Your task to perform on an android device: Open Google Chrome Image 0: 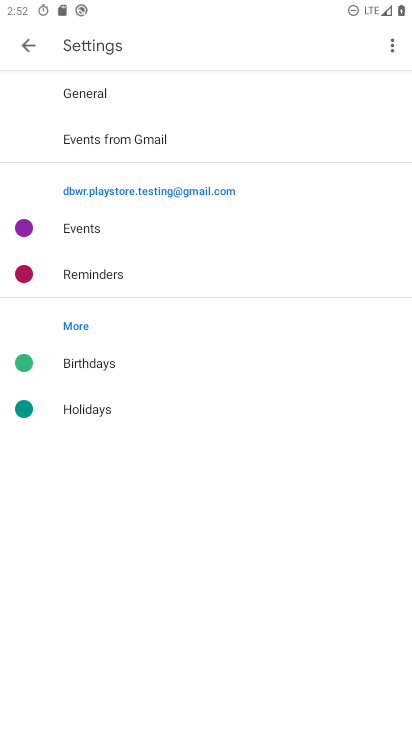
Step 0: press home button
Your task to perform on an android device: Open Google Chrome Image 1: 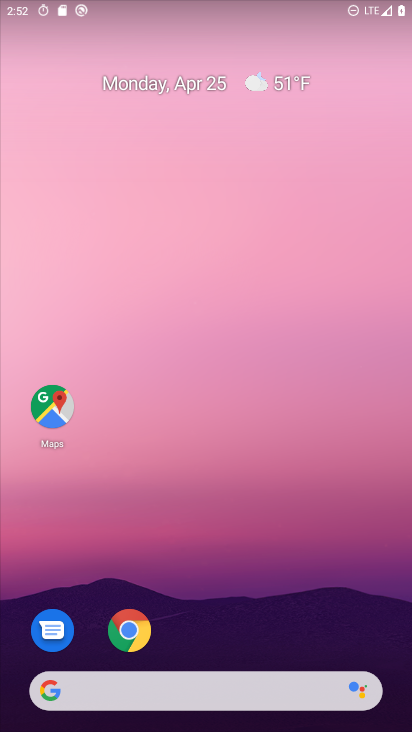
Step 1: click (133, 633)
Your task to perform on an android device: Open Google Chrome Image 2: 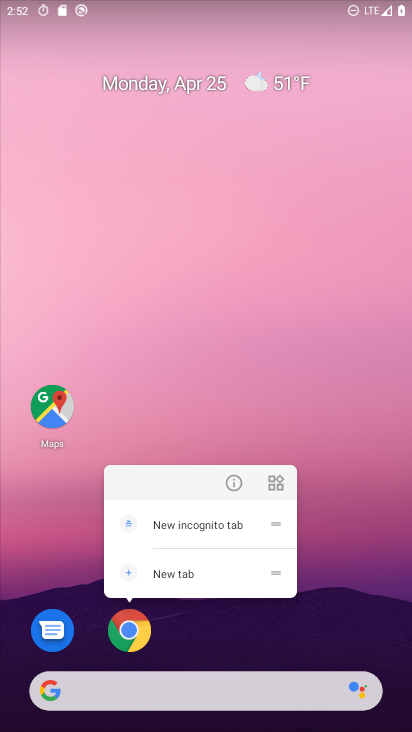
Step 2: click (236, 477)
Your task to perform on an android device: Open Google Chrome Image 3: 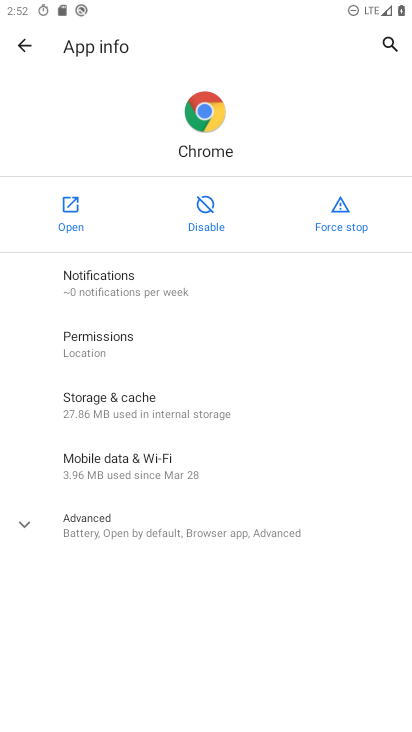
Step 3: click (62, 225)
Your task to perform on an android device: Open Google Chrome Image 4: 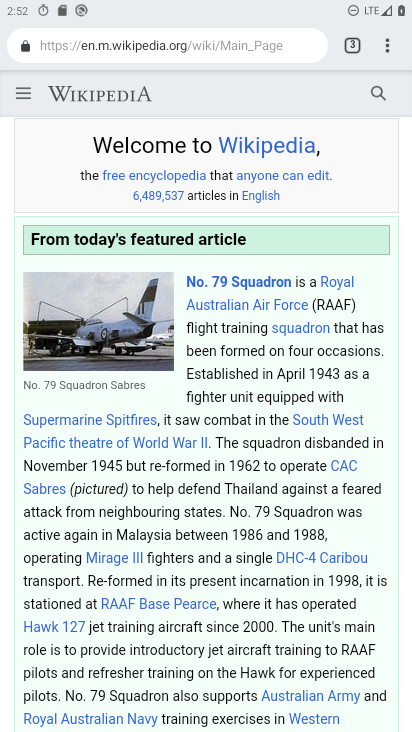
Step 4: task complete